Your task to perform on an android device: turn on data saver in the chrome app Image 0: 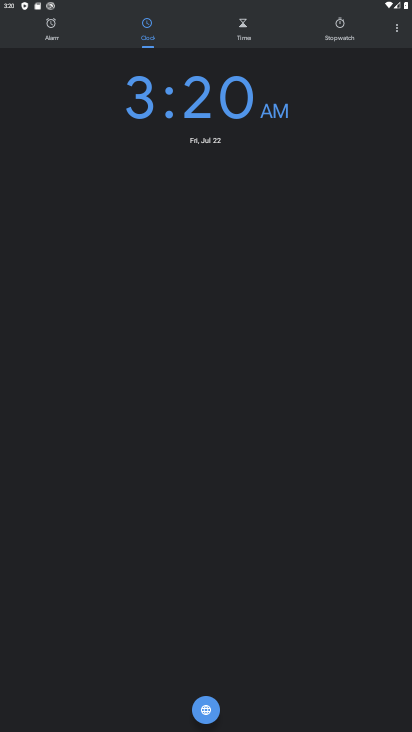
Step 0: press back button
Your task to perform on an android device: turn on data saver in the chrome app Image 1: 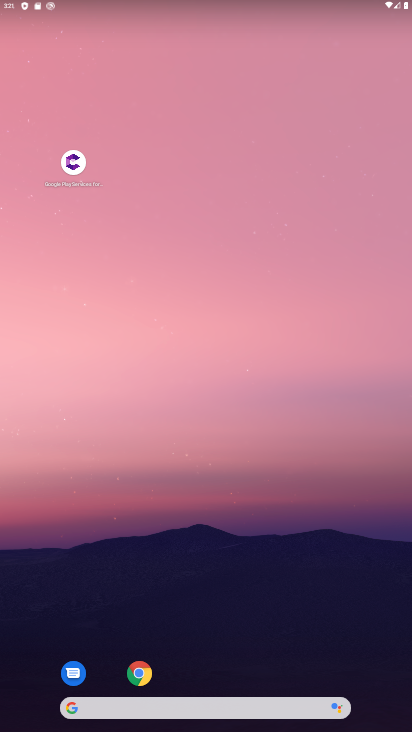
Step 1: click (143, 666)
Your task to perform on an android device: turn on data saver in the chrome app Image 2: 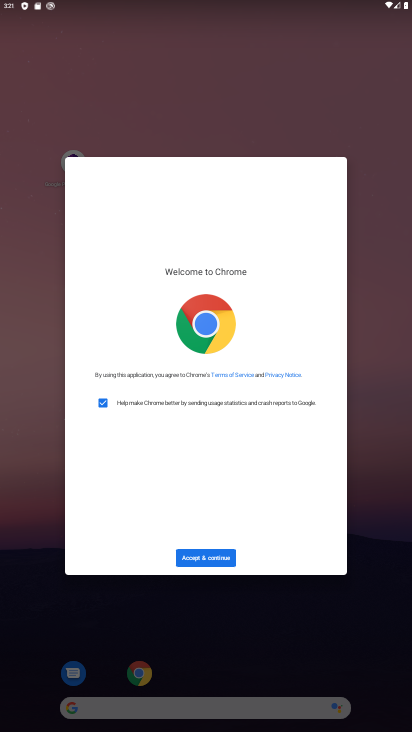
Step 2: click (203, 554)
Your task to perform on an android device: turn on data saver in the chrome app Image 3: 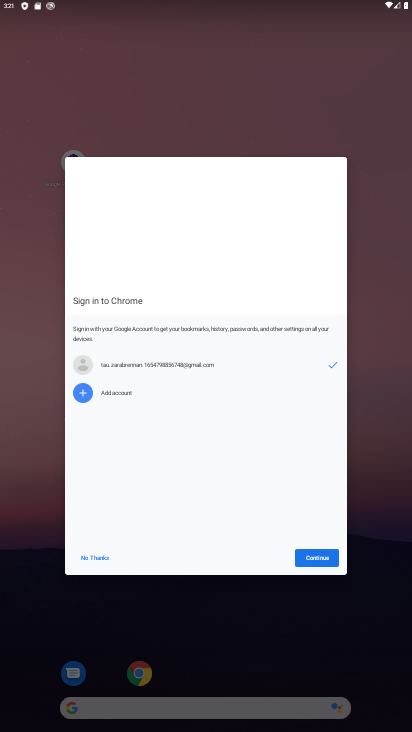
Step 3: click (315, 553)
Your task to perform on an android device: turn on data saver in the chrome app Image 4: 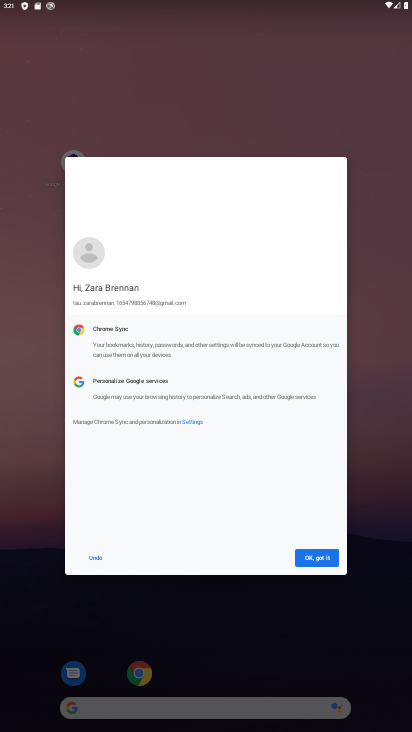
Step 4: click (315, 553)
Your task to perform on an android device: turn on data saver in the chrome app Image 5: 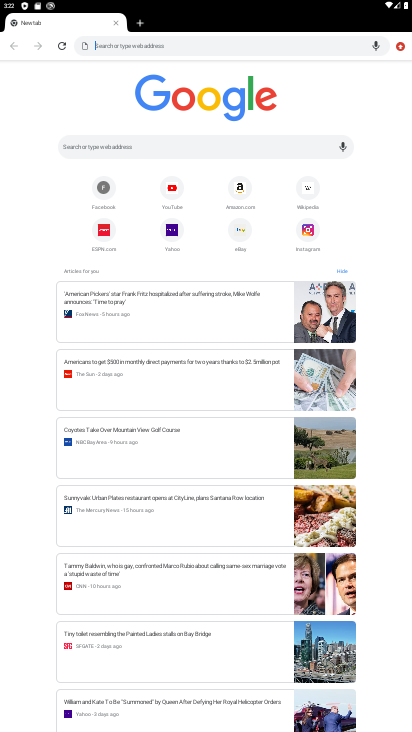
Step 5: click (404, 45)
Your task to perform on an android device: turn on data saver in the chrome app Image 6: 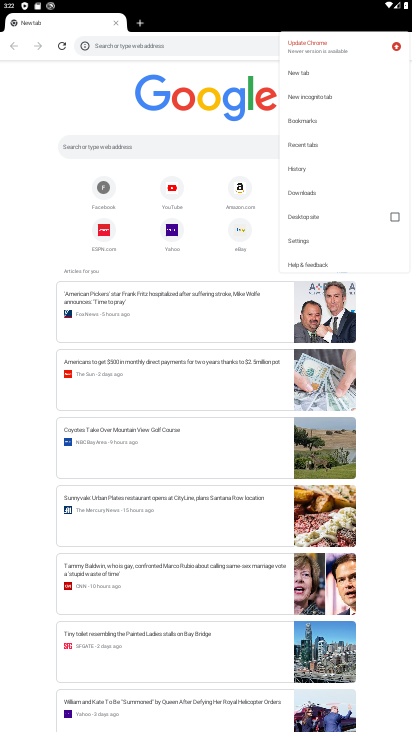
Step 6: click (301, 242)
Your task to perform on an android device: turn on data saver in the chrome app Image 7: 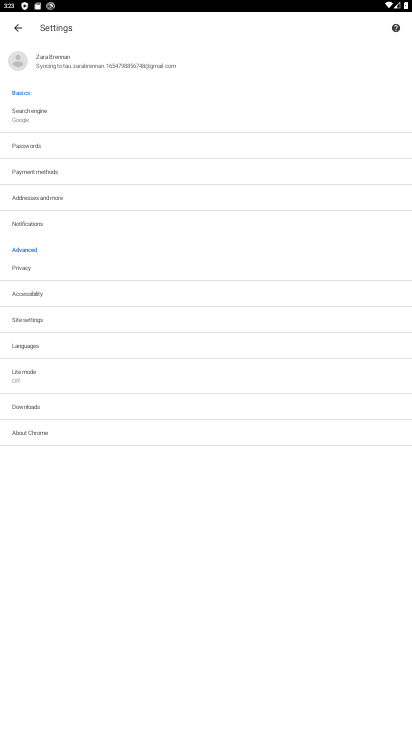
Step 7: click (34, 380)
Your task to perform on an android device: turn on data saver in the chrome app Image 8: 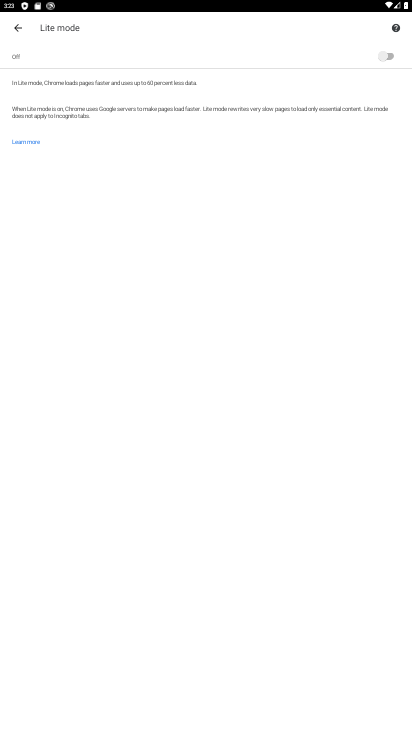
Step 8: click (401, 59)
Your task to perform on an android device: turn on data saver in the chrome app Image 9: 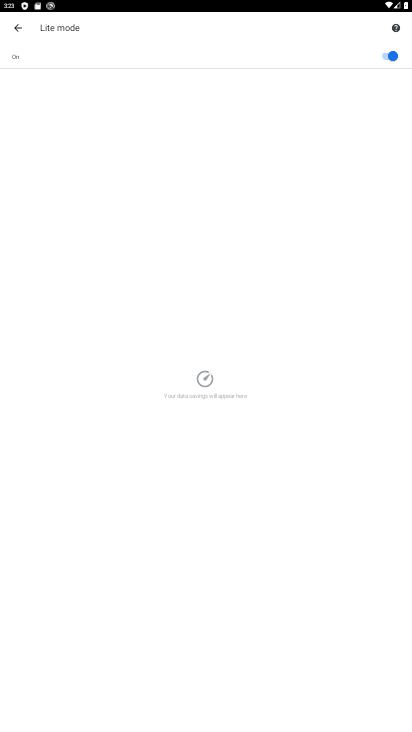
Step 9: task complete